Your task to perform on an android device: change the clock style Image 0: 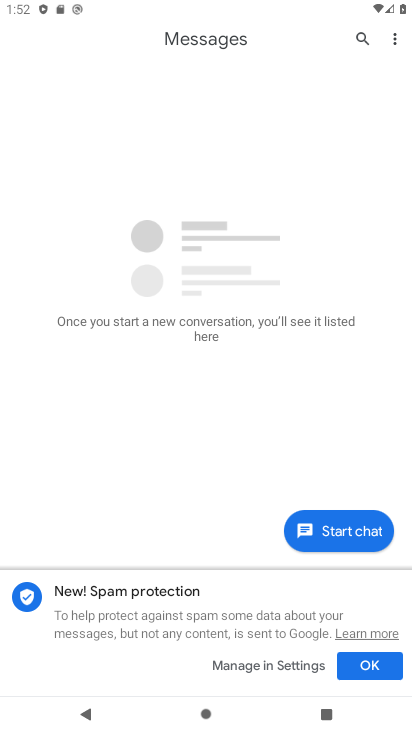
Step 0: press home button
Your task to perform on an android device: change the clock style Image 1: 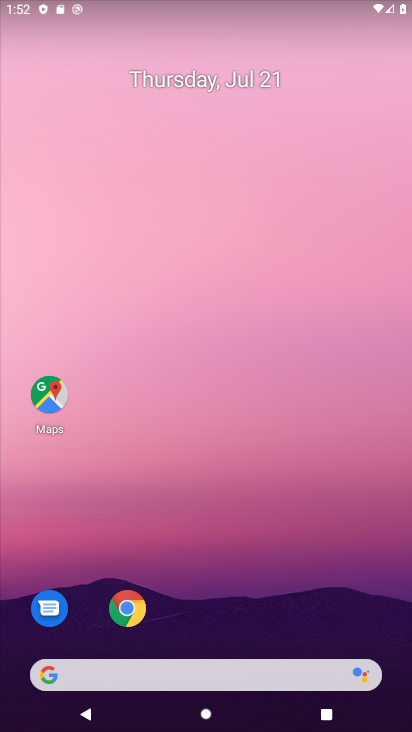
Step 1: drag from (253, 593) to (171, 94)
Your task to perform on an android device: change the clock style Image 2: 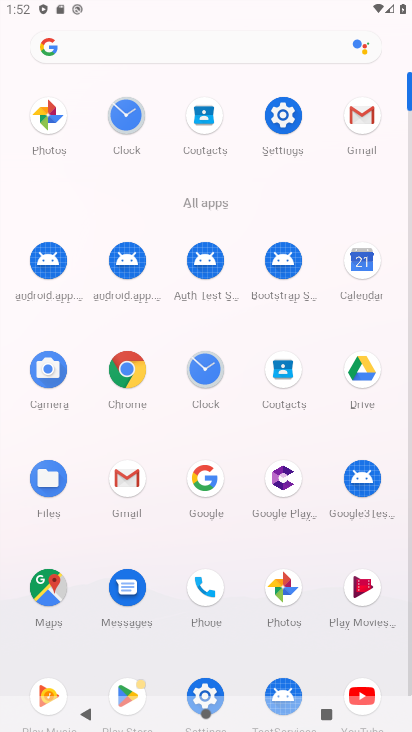
Step 2: click (200, 364)
Your task to perform on an android device: change the clock style Image 3: 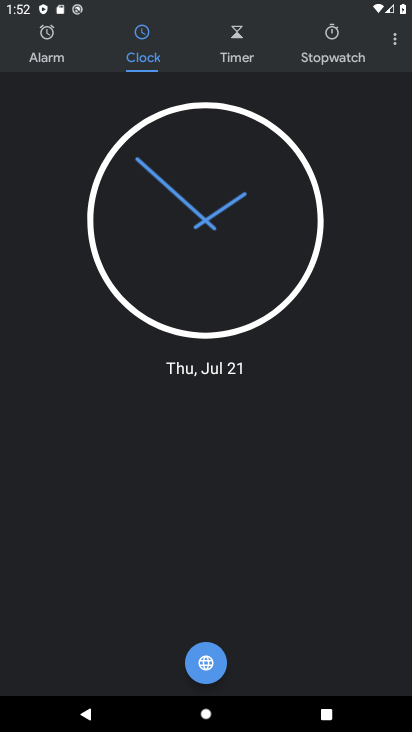
Step 3: click (392, 34)
Your task to perform on an android device: change the clock style Image 4: 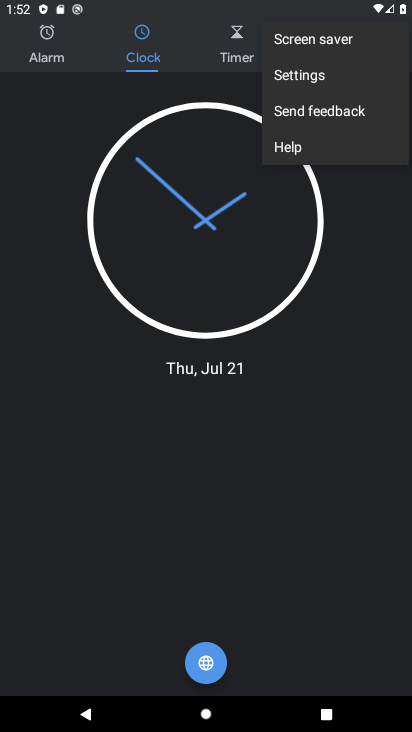
Step 4: click (309, 72)
Your task to perform on an android device: change the clock style Image 5: 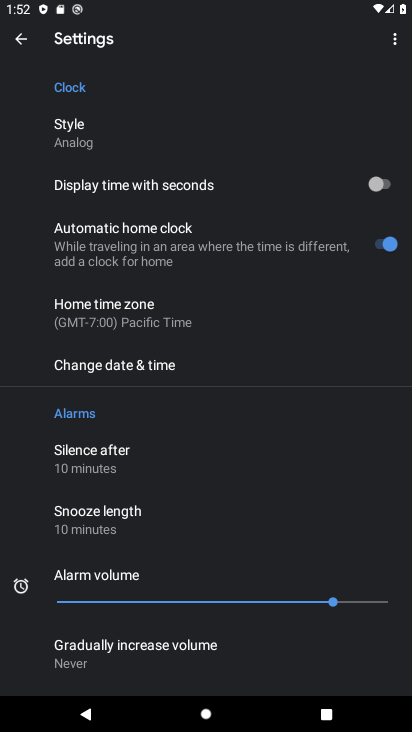
Step 5: click (69, 123)
Your task to perform on an android device: change the clock style Image 6: 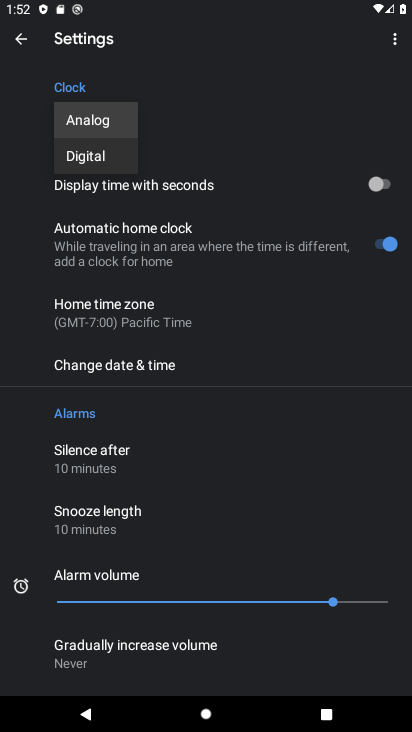
Step 6: click (80, 153)
Your task to perform on an android device: change the clock style Image 7: 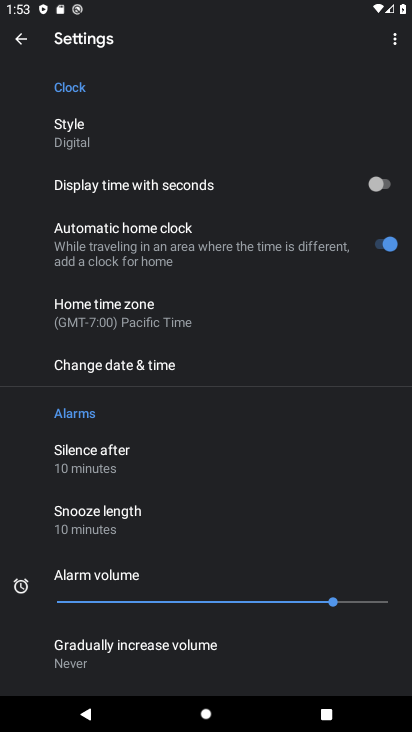
Step 7: task complete